Your task to perform on an android device: When is my next appointment? Image 0: 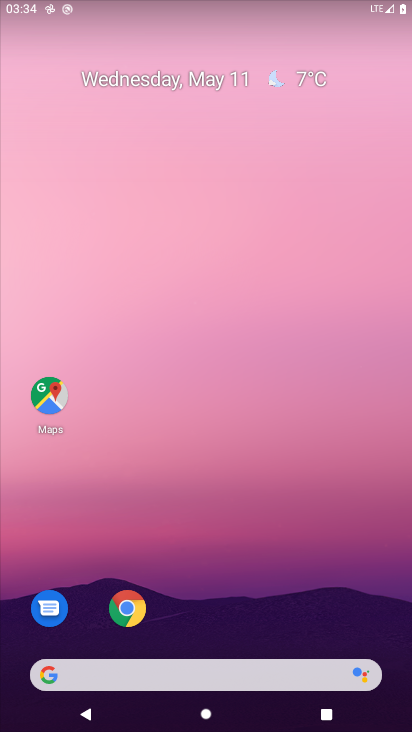
Step 0: press home button
Your task to perform on an android device: When is my next appointment? Image 1: 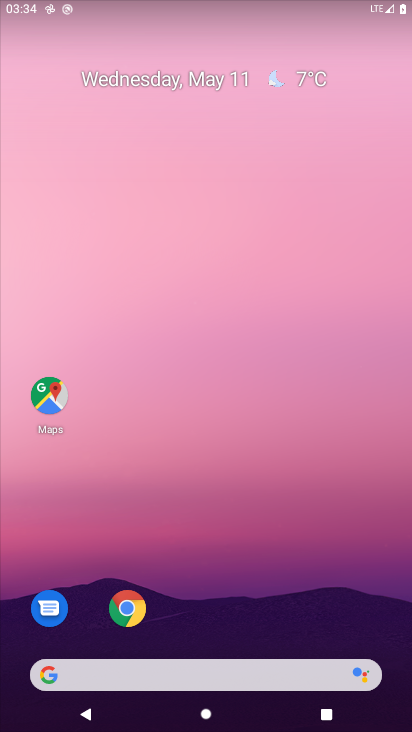
Step 1: press home button
Your task to perform on an android device: When is my next appointment? Image 2: 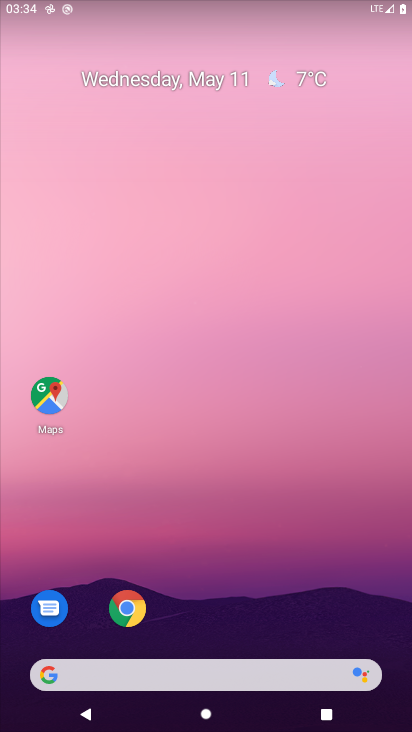
Step 2: press home button
Your task to perform on an android device: When is my next appointment? Image 3: 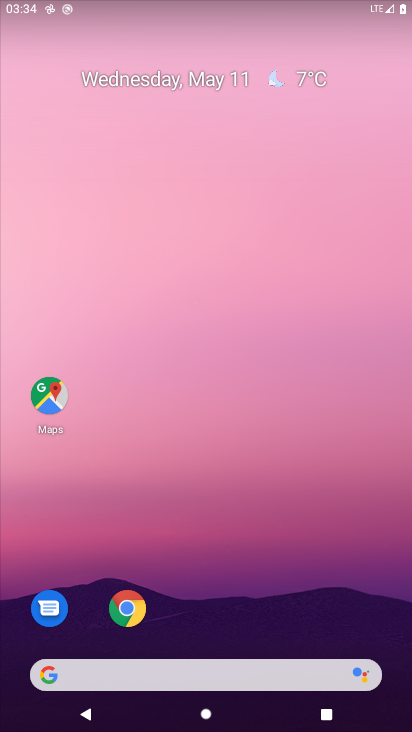
Step 3: drag from (216, 605) to (219, 118)
Your task to perform on an android device: When is my next appointment? Image 4: 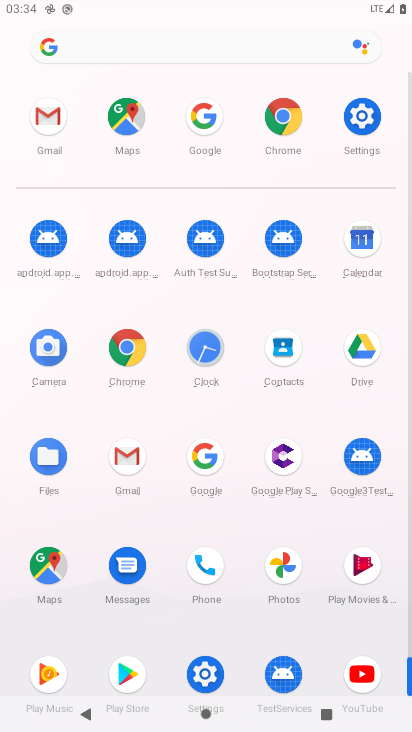
Step 4: click (369, 242)
Your task to perform on an android device: When is my next appointment? Image 5: 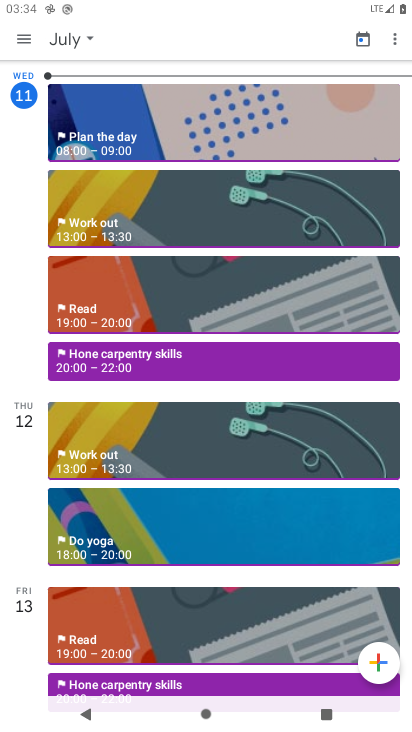
Step 5: task complete